Your task to perform on an android device: Go to display settings Image 0: 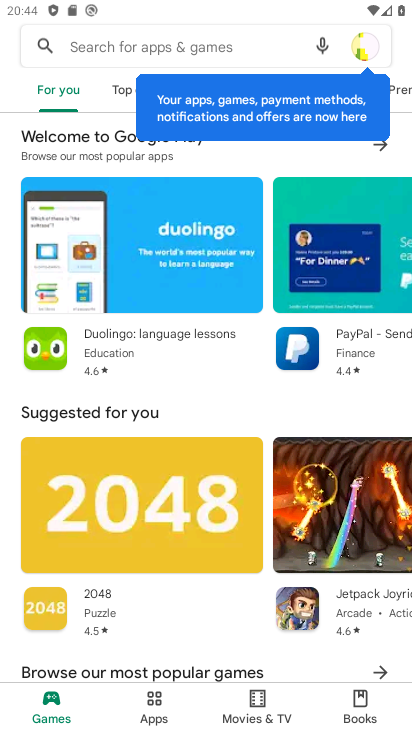
Step 0: press home button
Your task to perform on an android device: Go to display settings Image 1: 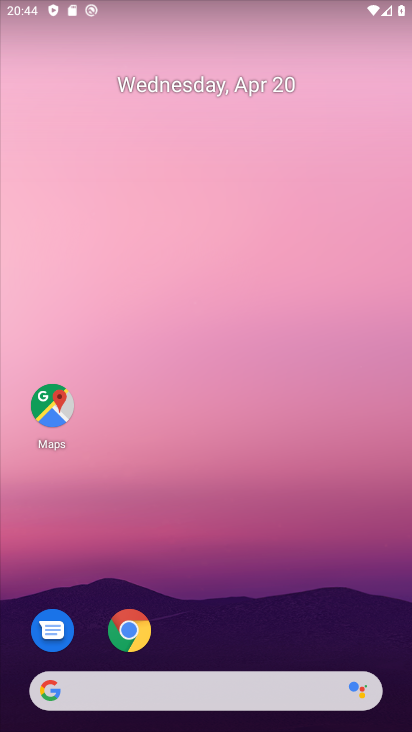
Step 1: drag from (333, 560) to (249, 137)
Your task to perform on an android device: Go to display settings Image 2: 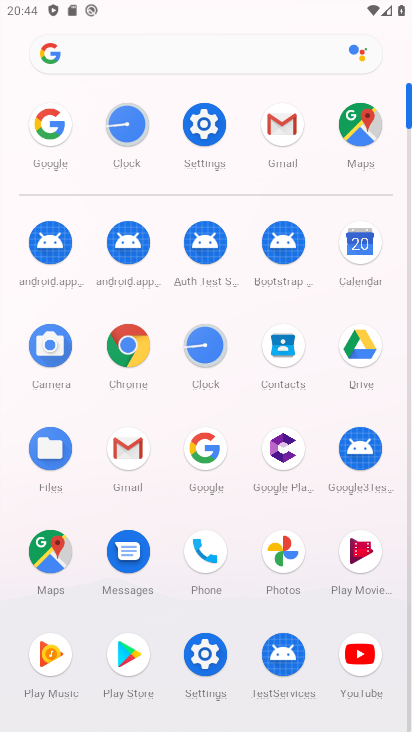
Step 2: click (188, 128)
Your task to perform on an android device: Go to display settings Image 3: 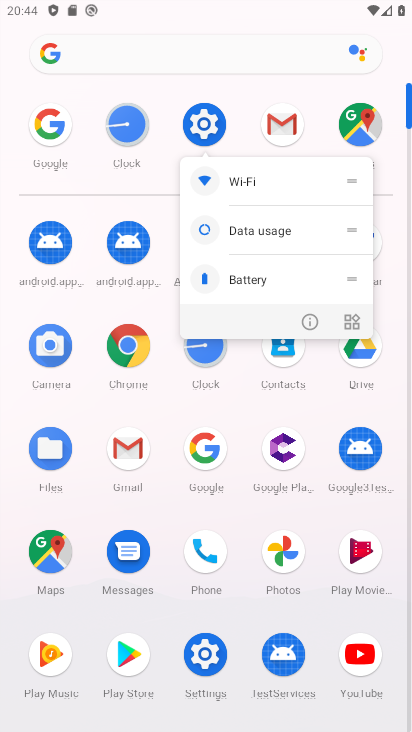
Step 3: click (189, 128)
Your task to perform on an android device: Go to display settings Image 4: 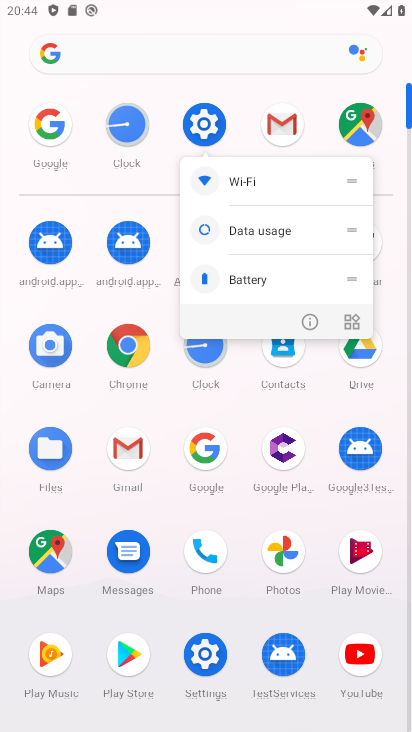
Step 4: click (189, 128)
Your task to perform on an android device: Go to display settings Image 5: 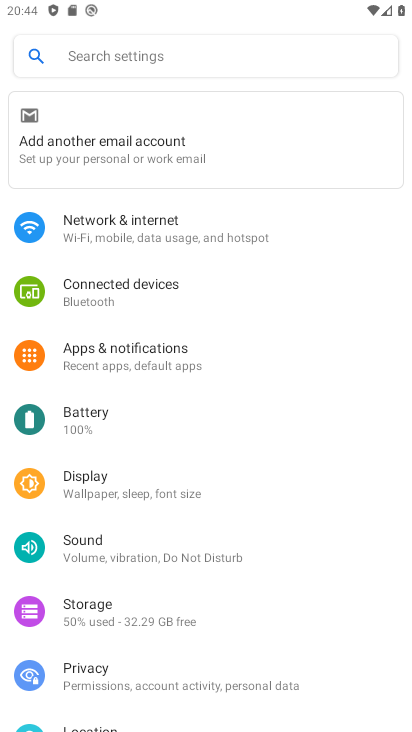
Step 5: click (105, 477)
Your task to perform on an android device: Go to display settings Image 6: 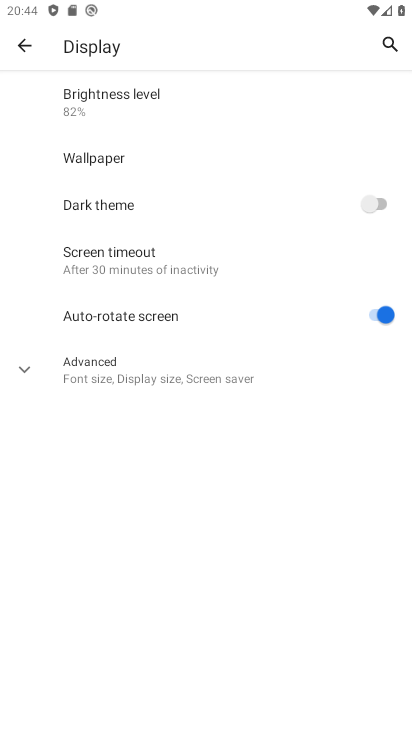
Step 6: task complete